Your task to perform on an android device: Open Google Maps and go to "Timeline" Image 0: 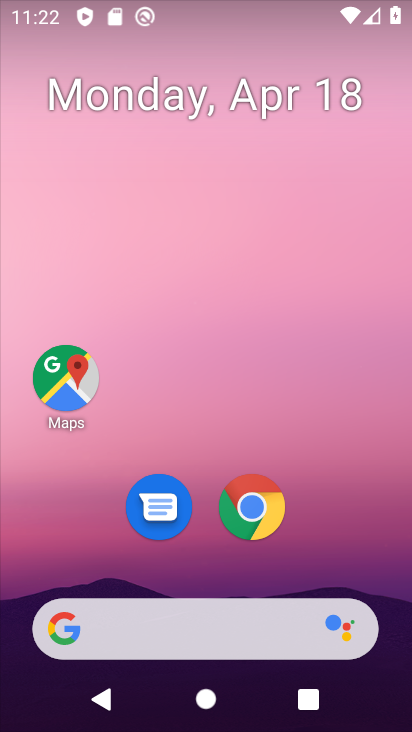
Step 0: click (53, 378)
Your task to perform on an android device: Open Google Maps and go to "Timeline" Image 1: 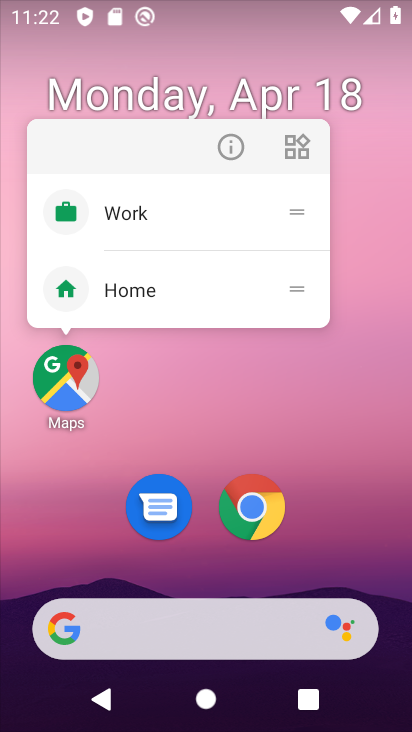
Step 1: click (72, 388)
Your task to perform on an android device: Open Google Maps and go to "Timeline" Image 2: 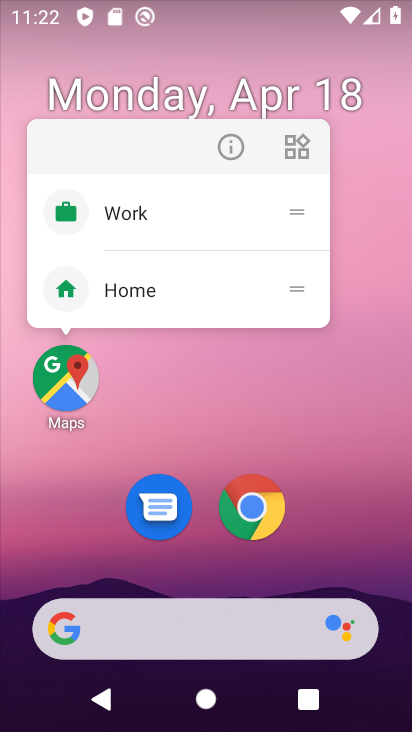
Step 2: click (74, 390)
Your task to perform on an android device: Open Google Maps and go to "Timeline" Image 3: 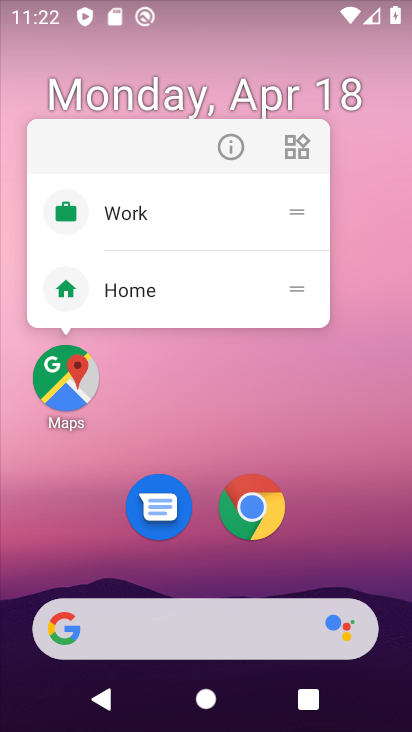
Step 3: click (61, 404)
Your task to perform on an android device: Open Google Maps and go to "Timeline" Image 4: 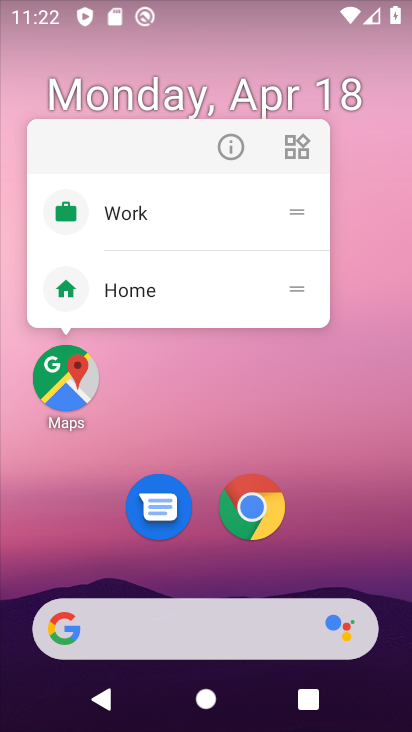
Step 4: click (69, 396)
Your task to perform on an android device: Open Google Maps and go to "Timeline" Image 5: 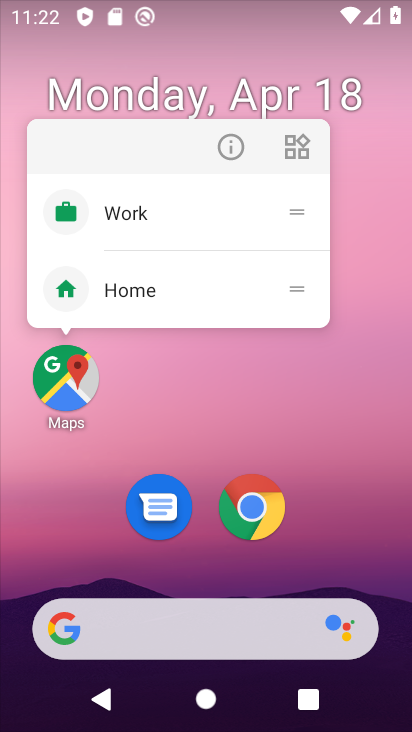
Step 5: click (69, 396)
Your task to perform on an android device: Open Google Maps and go to "Timeline" Image 6: 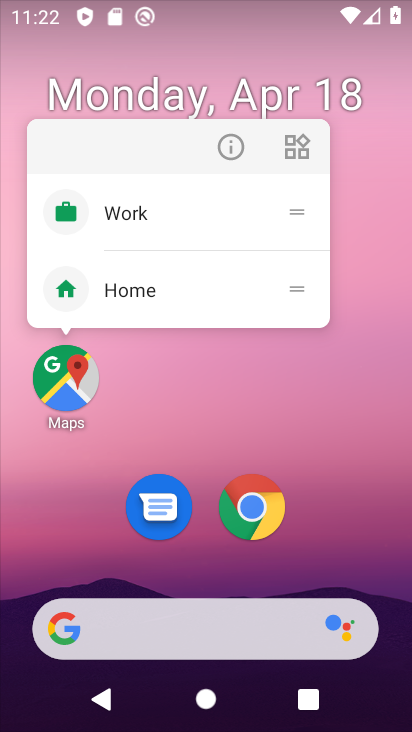
Step 6: click (73, 385)
Your task to perform on an android device: Open Google Maps and go to "Timeline" Image 7: 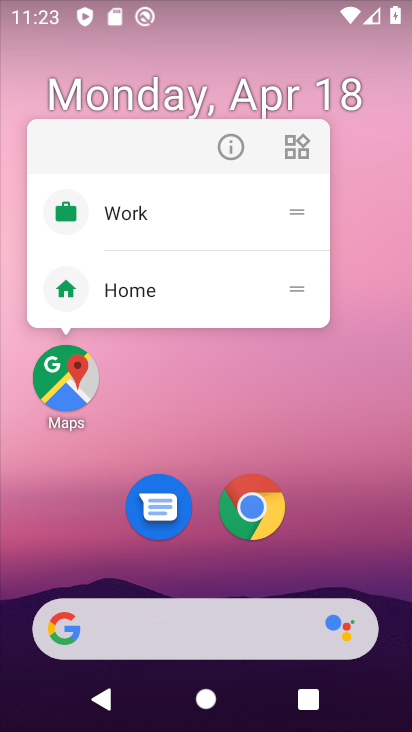
Step 7: click (64, 383)
Your task to perform on an android device: Open Google Maps and go to "Timeline" Image 8: 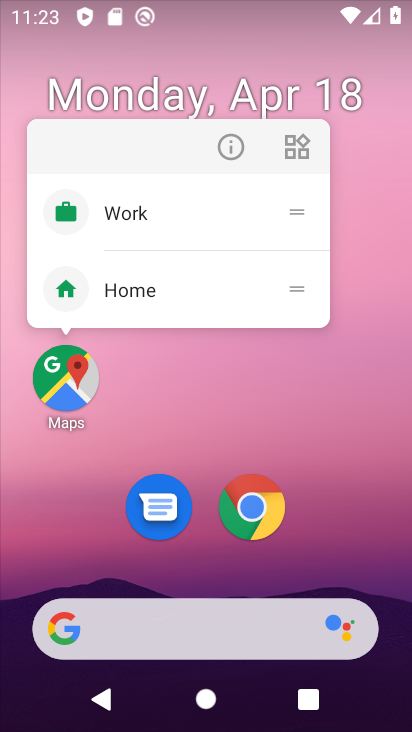
Step 8: click (76, 390)
Your task to perform on an android device: Open Google Maps and go to "Timeline" Image 9: 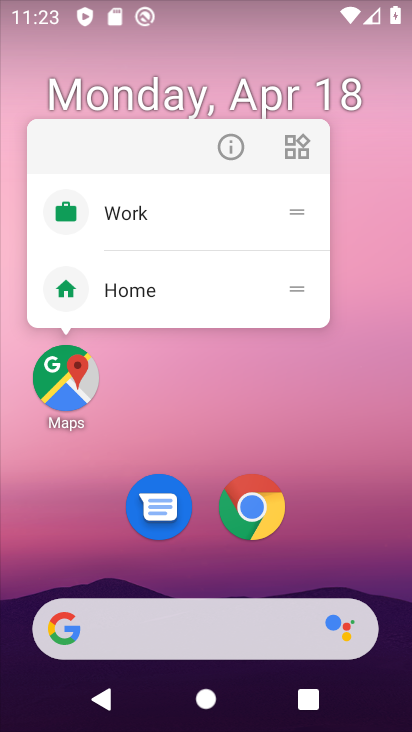
Step 9: click (60, 384)
Your task to perform on an android device: Open Google Maps and go to "Timeline" Image 10: 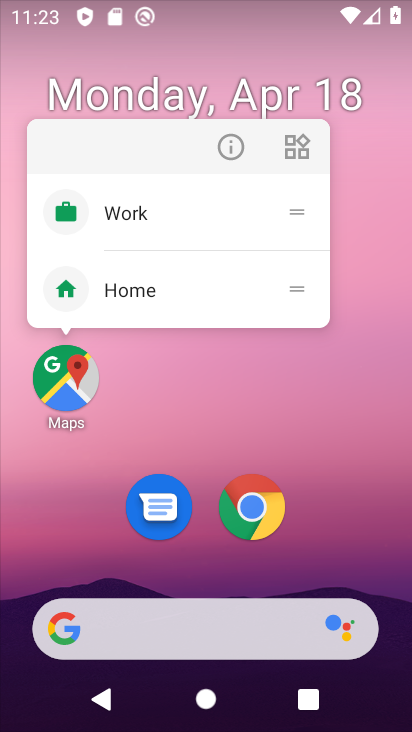
Step 10: click (78, 394)
Your task to perform on an android device: Open Google Maps and go to "Timeline" Image 11: 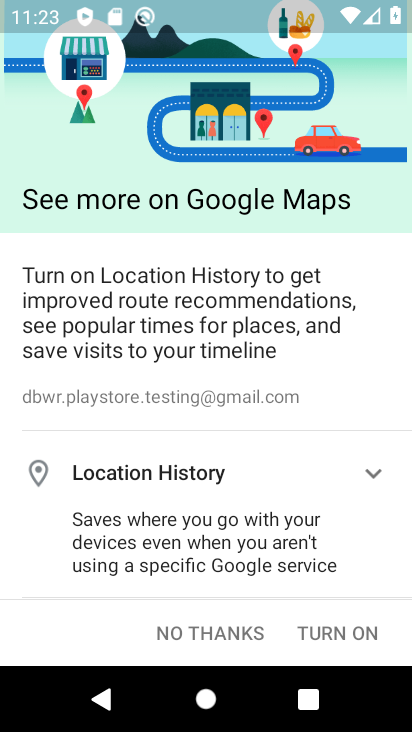
Step 11: press back button
Your task to perform on an android device: Open Google Maps and go to "Timeline" Image 12: 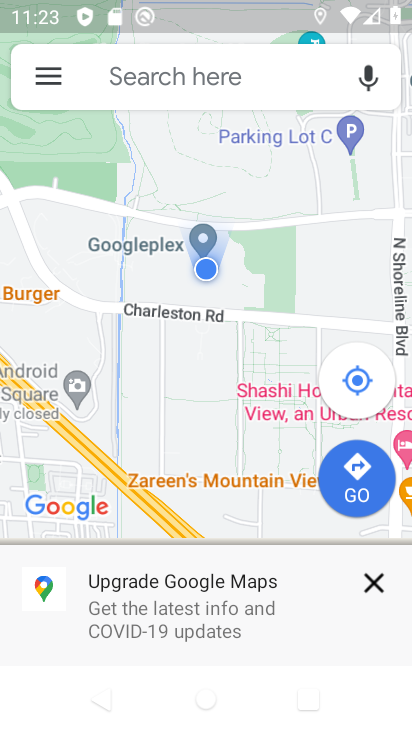
Step 12: click (378, 579)
Your task to perform on an android device: Open Google Maps and go to "Timeline" Image 13: 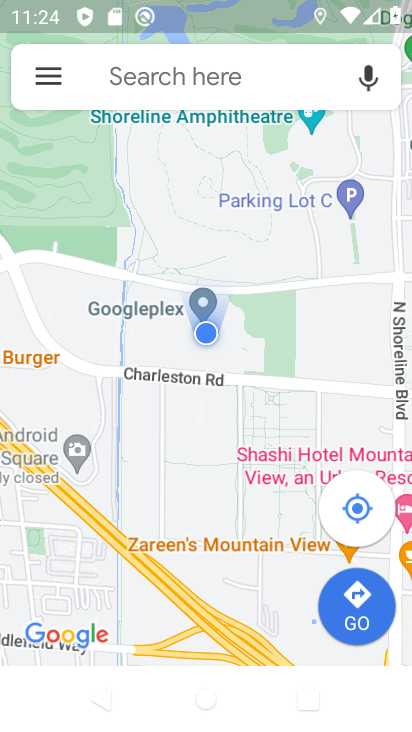
Step 13: click (36, 70)
Your task to perform on an android device: Open Google Maps and go to "Timeline" Image 14: 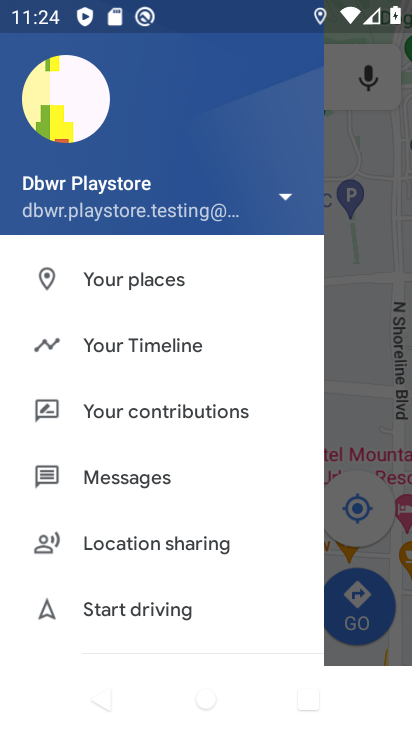
Step 14: click (166, 343)
Your task to perform on an android device: Open Google Maps and go to "Timeline" Image 15: 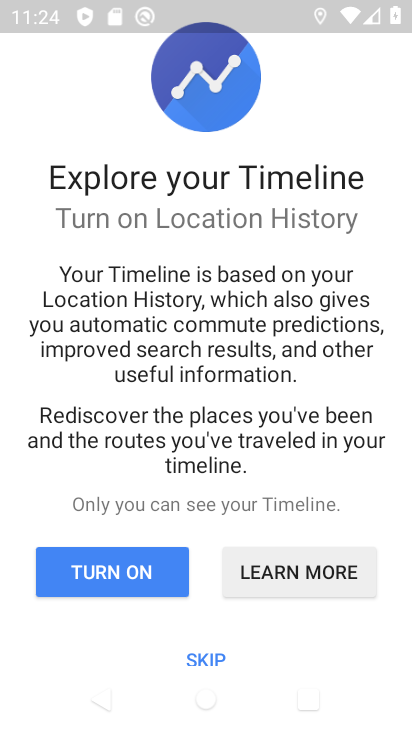
Step 15: click (195, 661)
Your task to perform on an android device: Open Google Maps and go to "Timeline" Image 16: 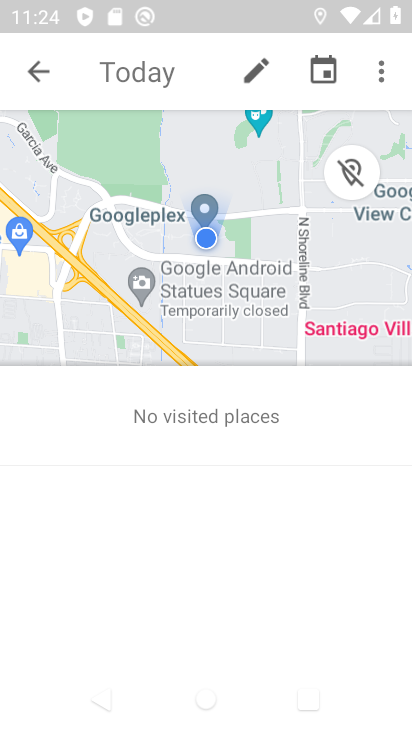
Step 16: task complete